Your task to perform on an android device: Find coffee shops on Maps Image 0: 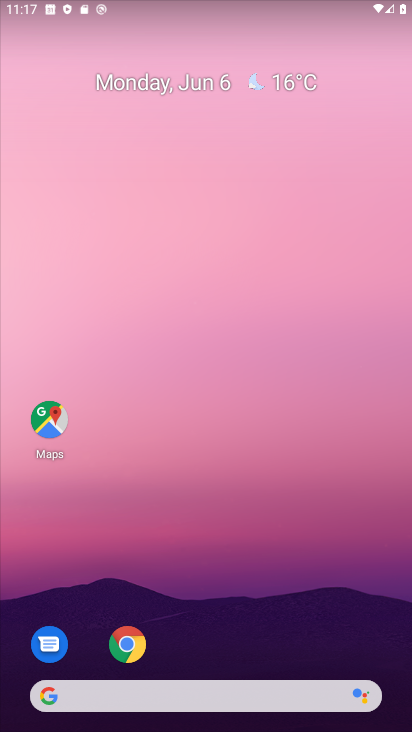
Step 0: drag from (239, 599) to (264, 129)
Your task to perform on an android device: Find coffee shops on Maps Image 1: 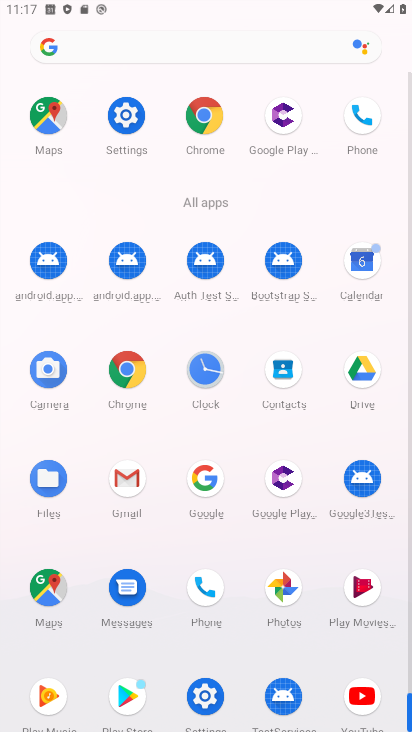
Step 1: click (48, 592)
Your task to perform on an android device: Find coffee shops on Maps Image 2: 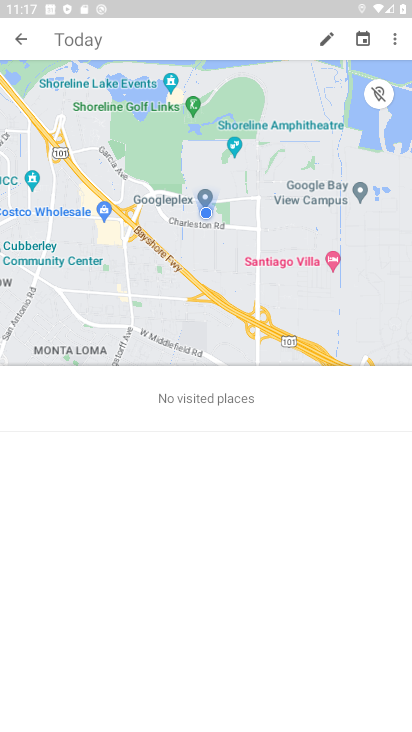
Step 2: press back button
Your task to perform on an android device: Find coffee shops on Maps Image 3: 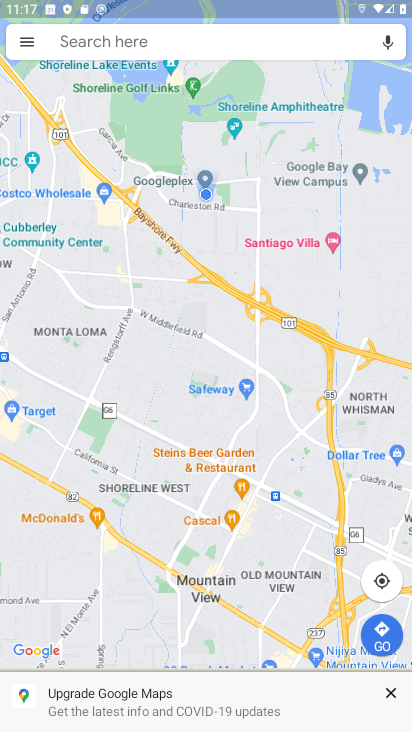
Step 3: click (195, 48)
Your task to perform on an android device: Find coffee shops on Maps Image 4: 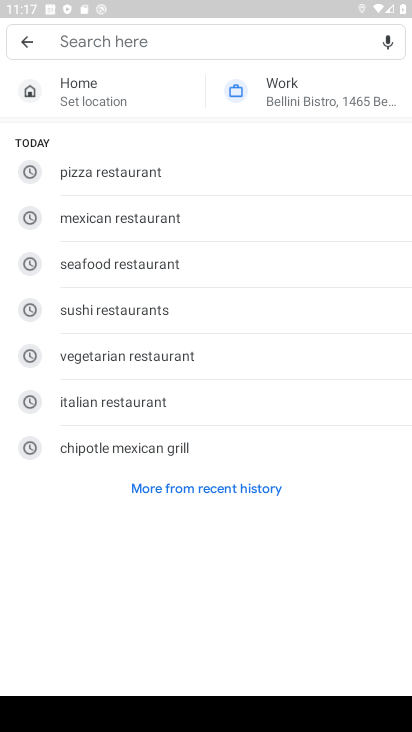
Step 4: type "coffee shops"
Your task to perform on an android device: Find coffee shops on Maps Image 5: 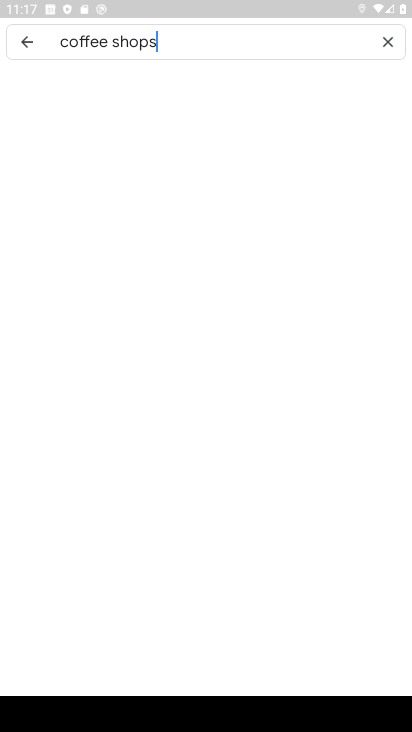
Step 5: type ""
Your task to perform on an android device: Find coffee shops on Maps Image 6: 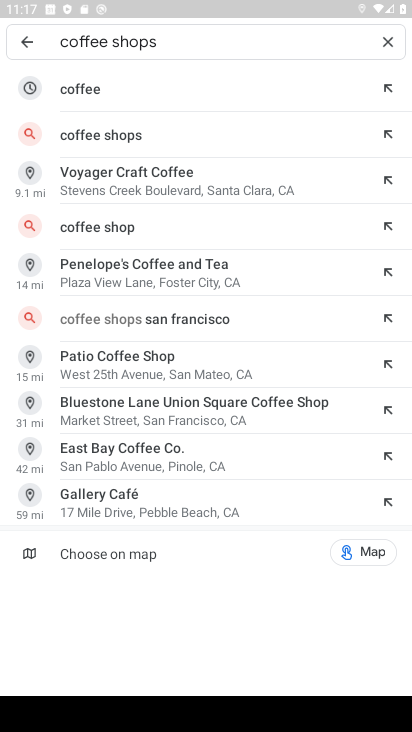
Step 6: click (175, 142)
Your task to perform on an android device: Find coffee shops on Maps Image 7: 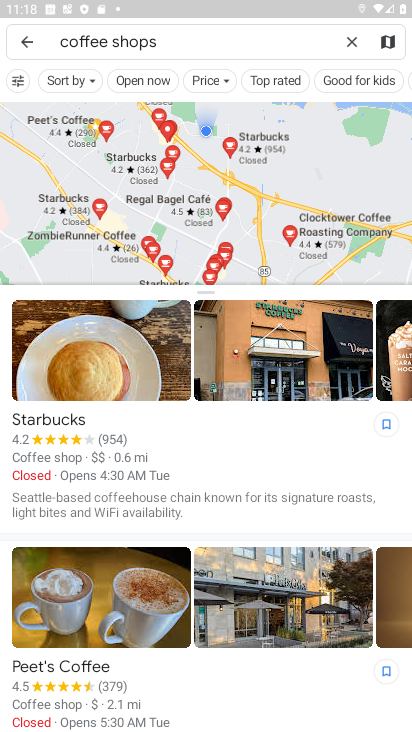
Step 7: task complete